Your task to perform on an android device: turn on the 24-hour format for clock Image 0: 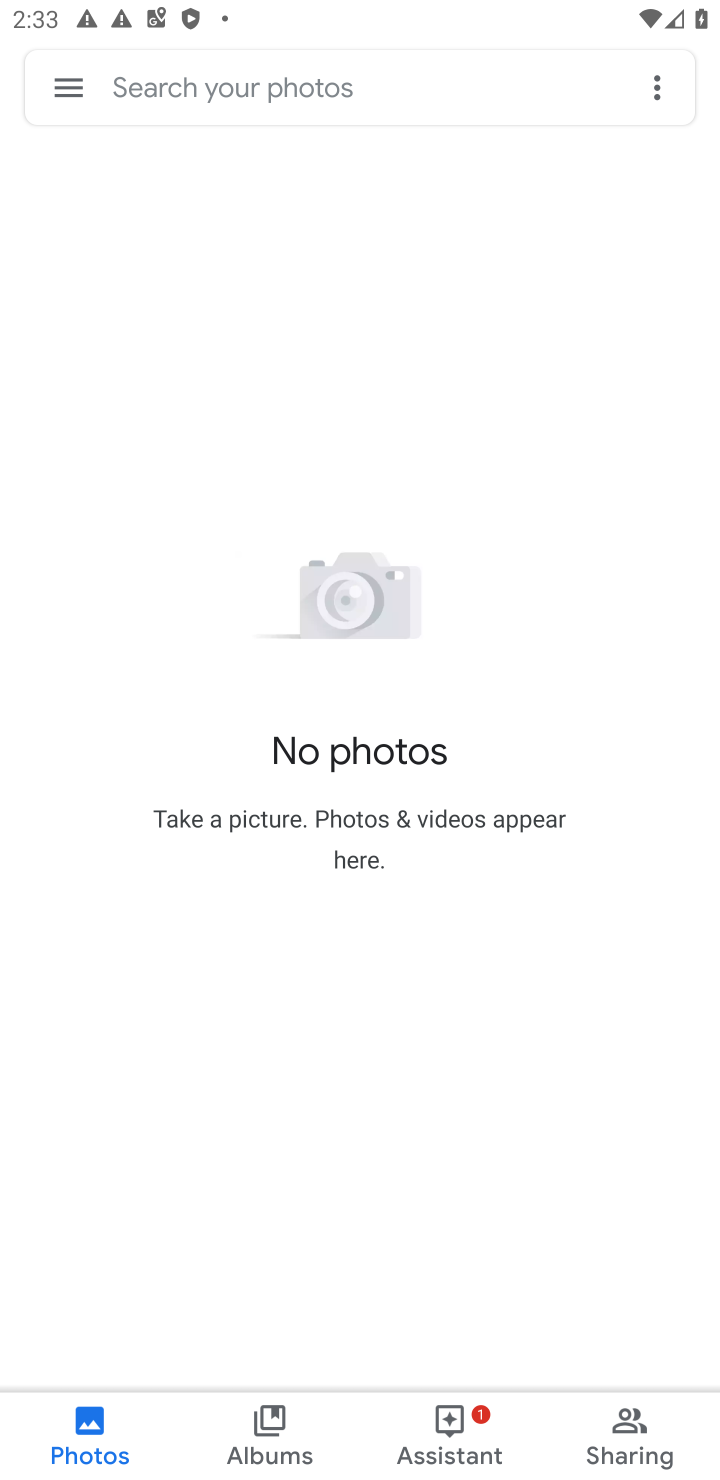
Step 0: press home button
Your task to perform on an android device: turn on the 24-hour format for clock Image 1: 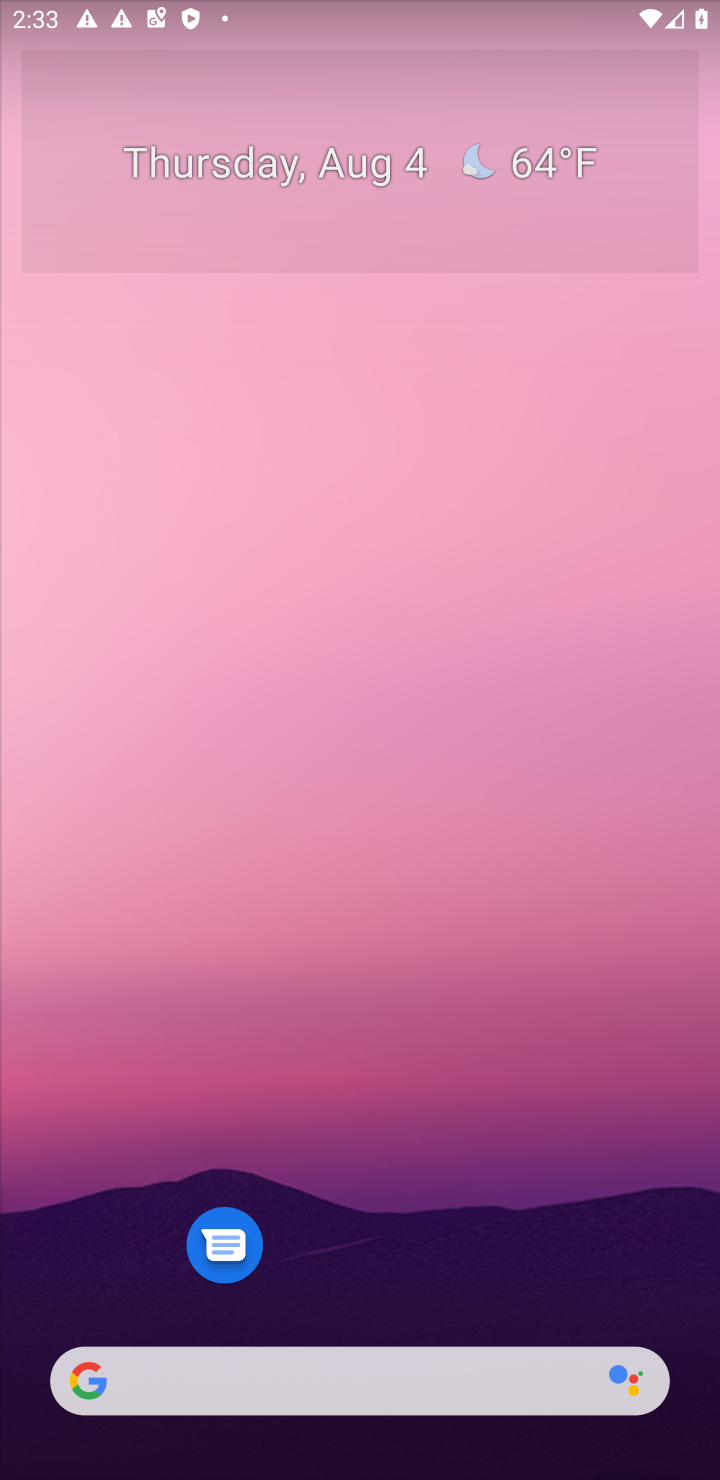
Step 1: drag from (416, 1203) to (501, 56)
Your task to perform on an android device: turn on the 24-hour format for clock Image 2: 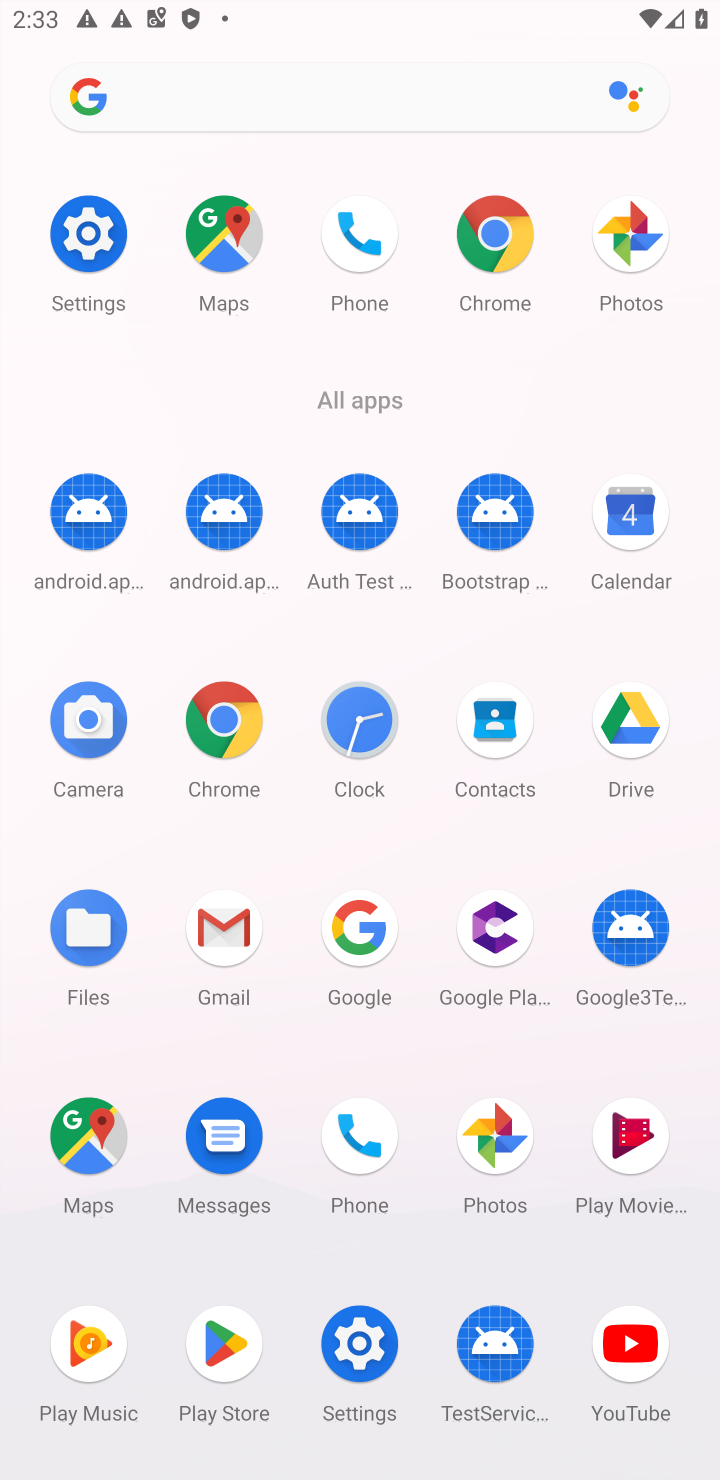
Step 2: click (351, 711)
Your task to perform on an android device: turn on the 24-hour format for clock Image 3: 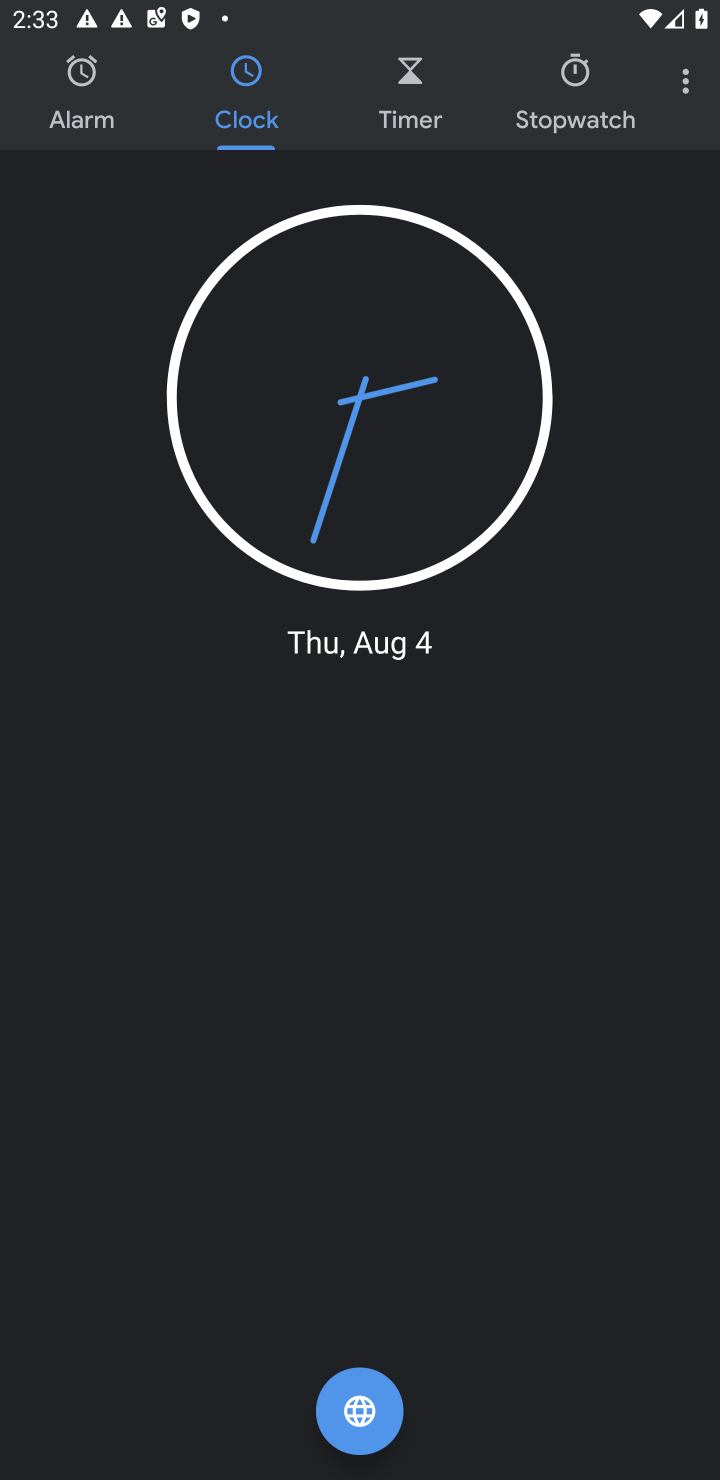
Step 3: click (667, 82)
Your task to perform on an android device: turn on the 24-hour format for clock Image 4: 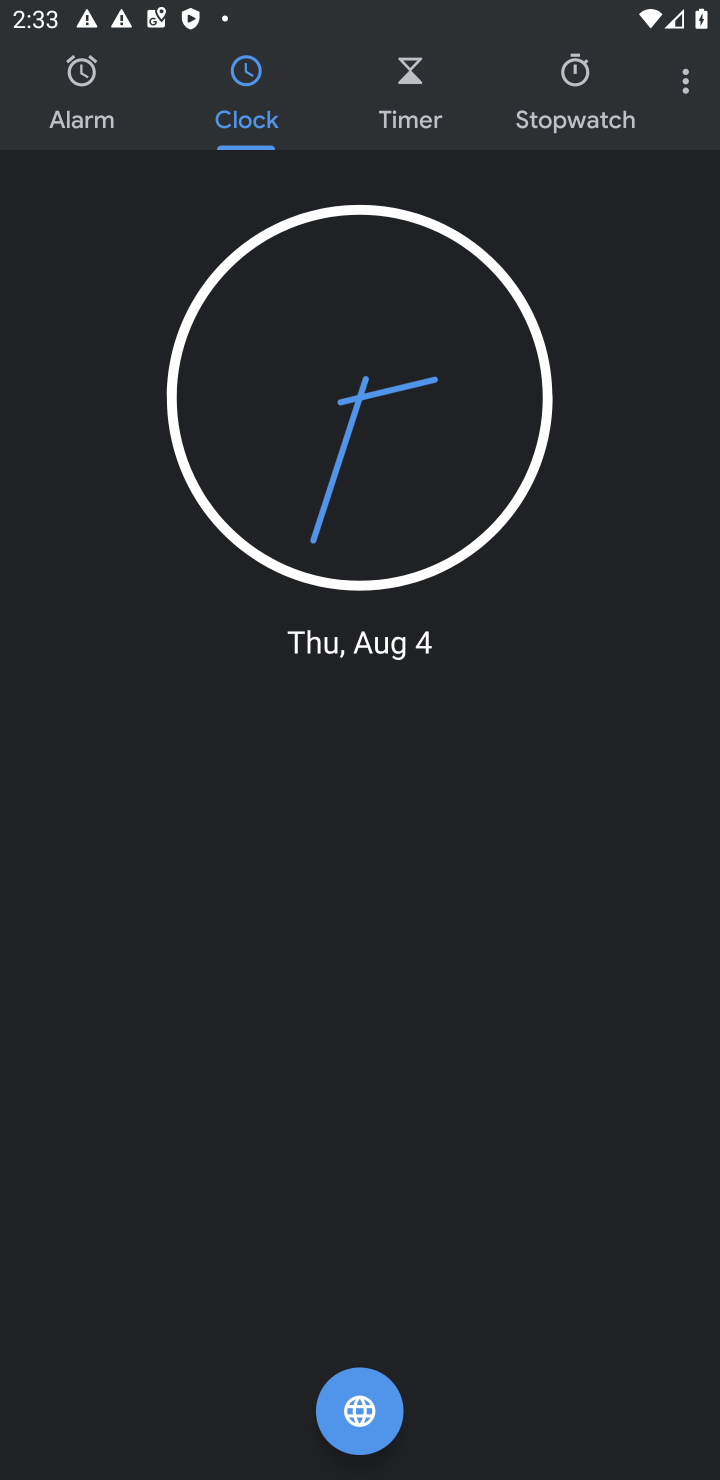
Step 4: click (681, 98)
Your task to perform on an android device: turn on the 24-hour format for clock Image 5: 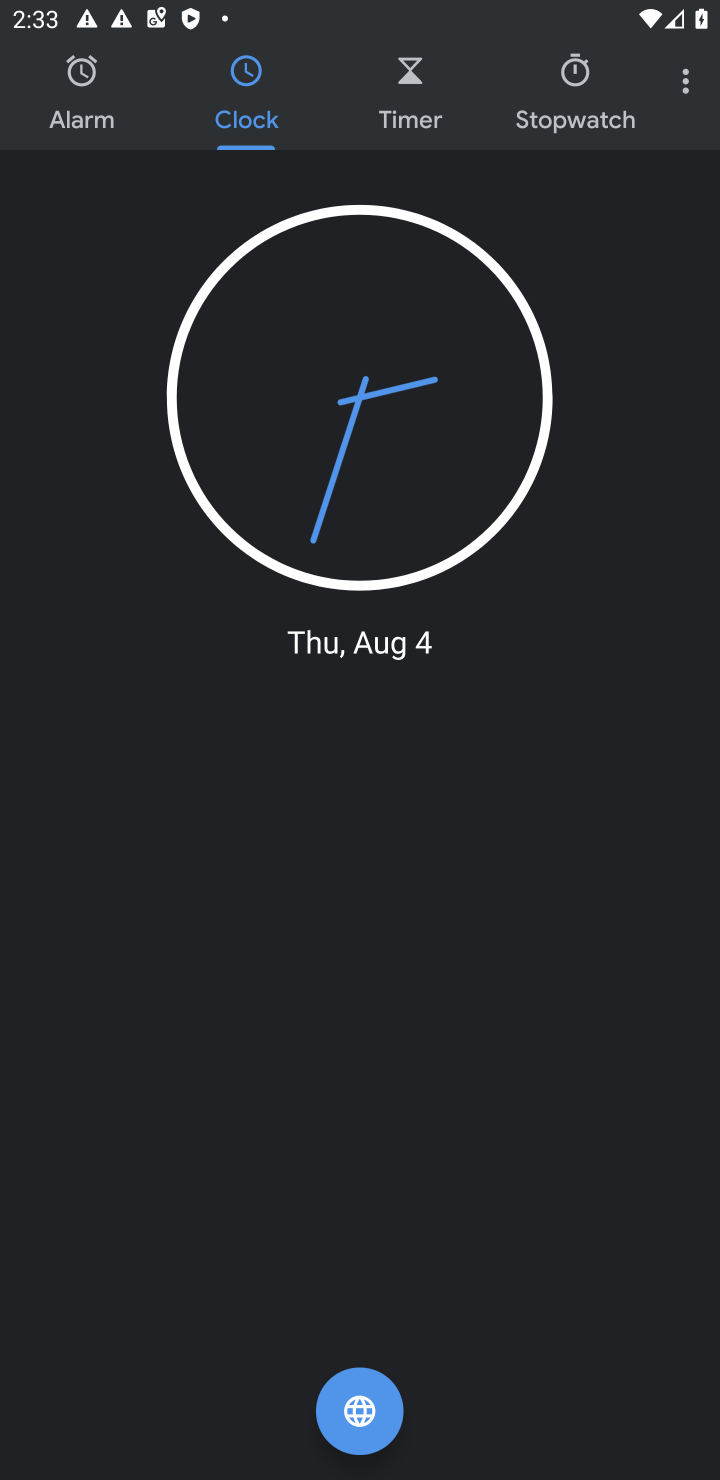
Step 5: click (690, 103)
Your task to perform on an android device: turn on the 24-hour format for clock Image 6: 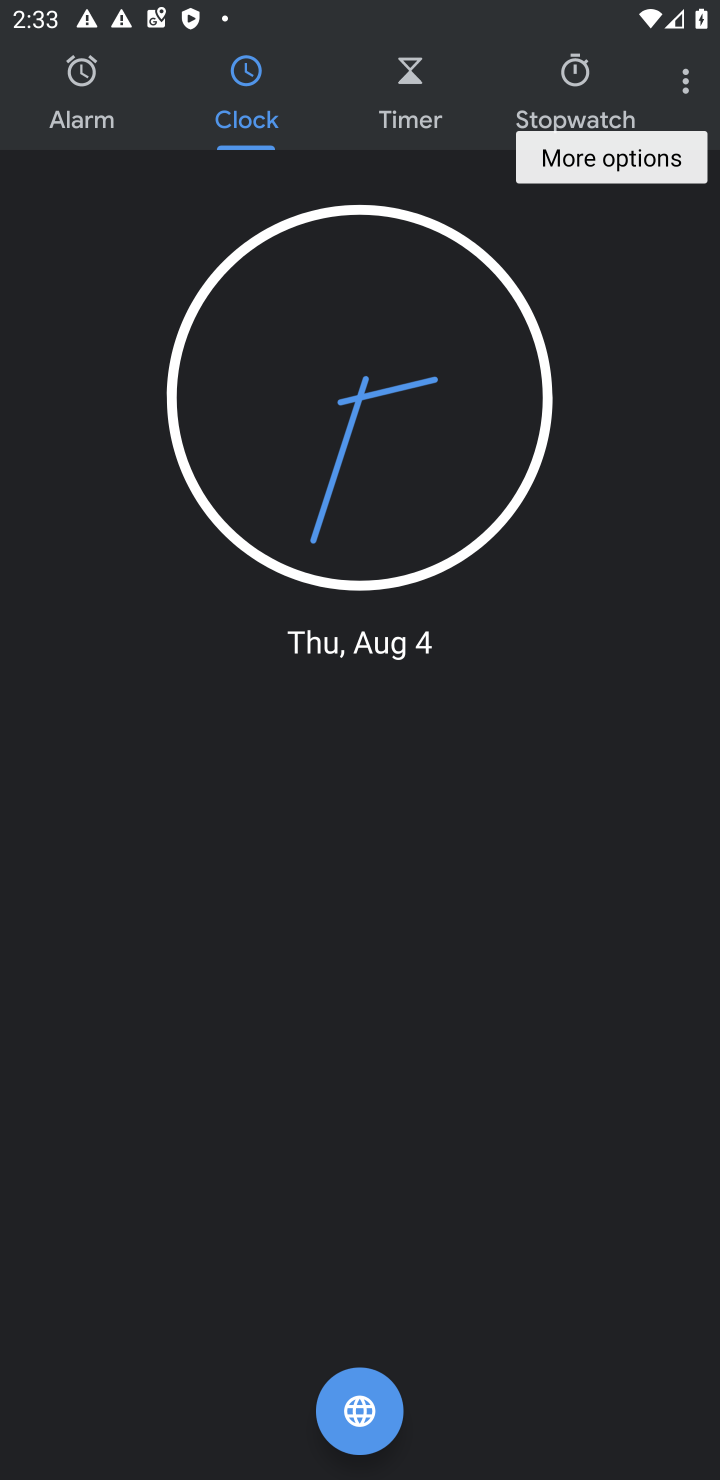
Step 6: click (690, 103)
Your task to perform on an android device: turn on the 24-hour format for clock Image 7: 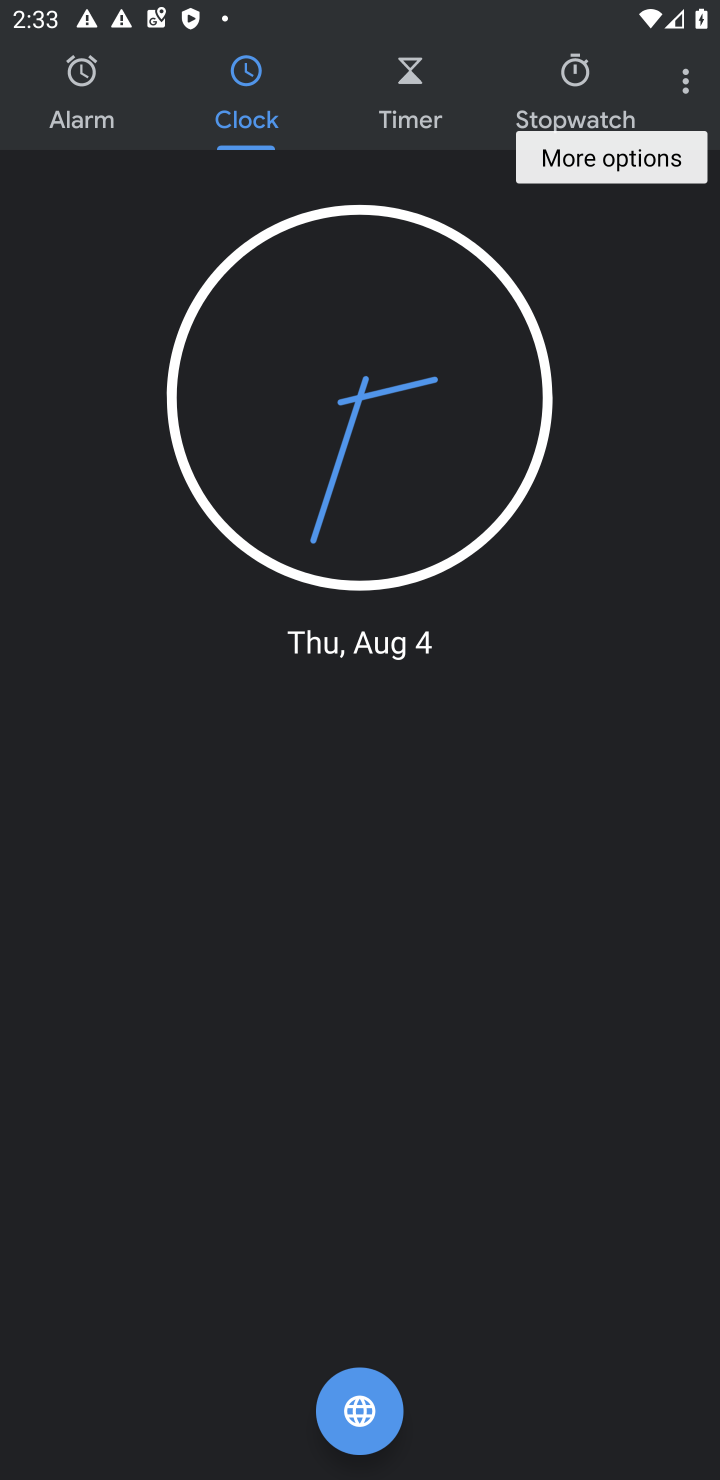
Step 7: click (690, 103)
Your task to perform on an android device: turn on the 24-hour format for clock Image 8: 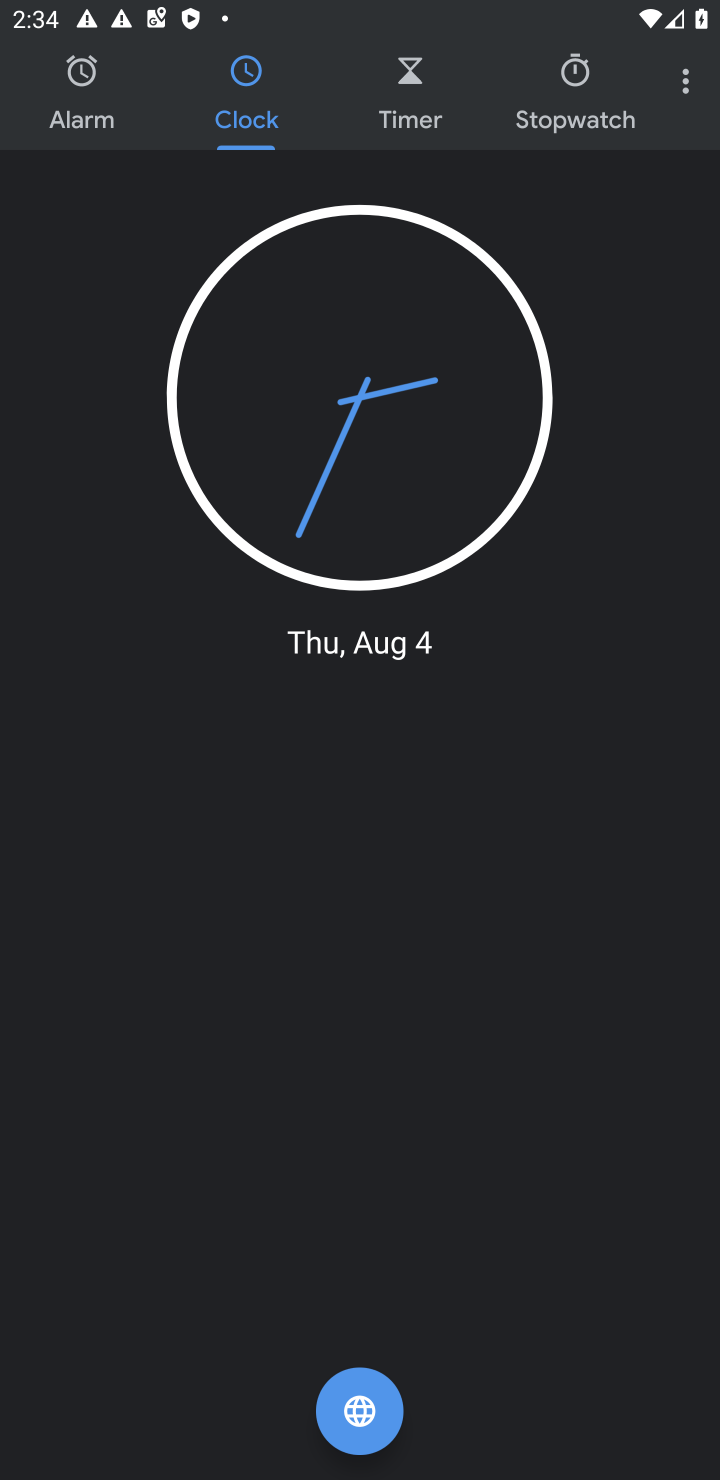
Step 8: click (679, 84)
Your task to perform on an android device: turn on the 24-hour format for clock Image 9: 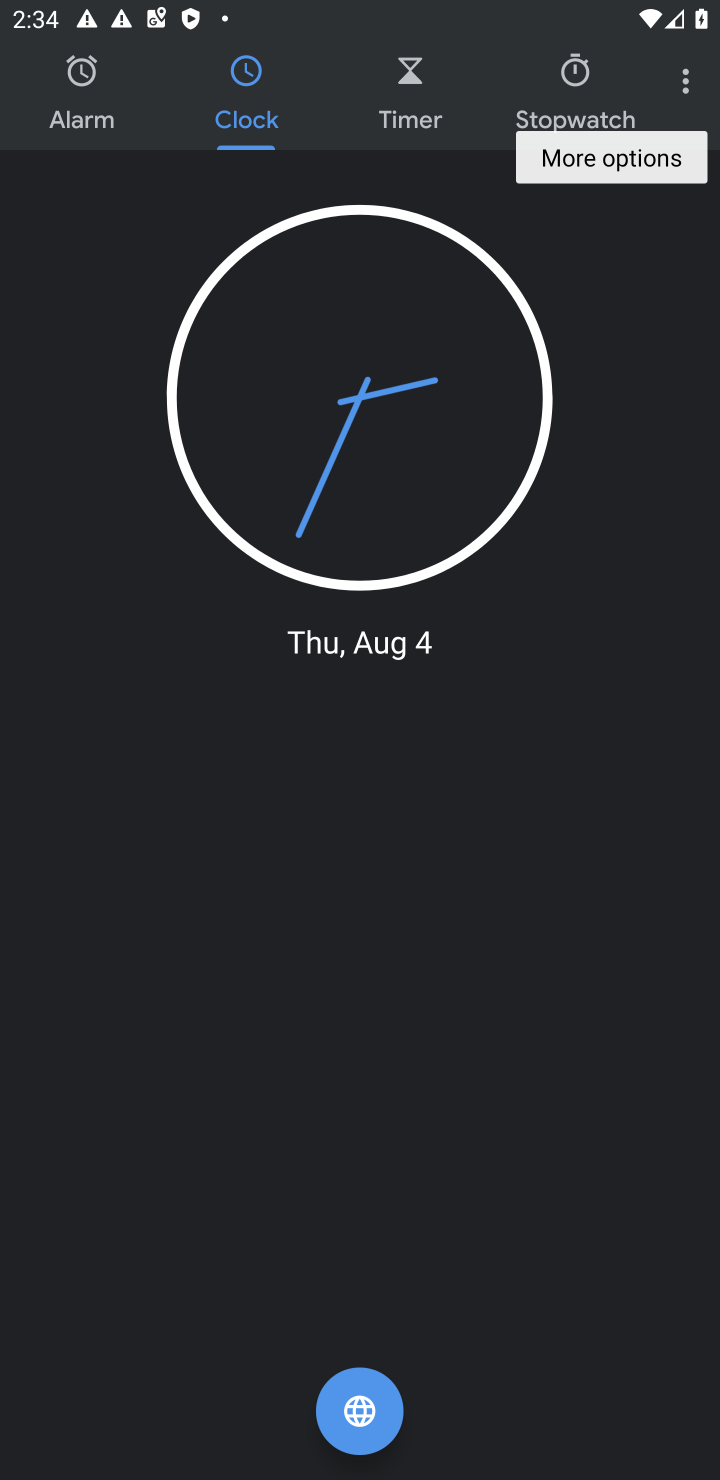
Step 9: click (679, 84)
Your task to perform on an android device: turn on the 24-hour format for clock Image 10: 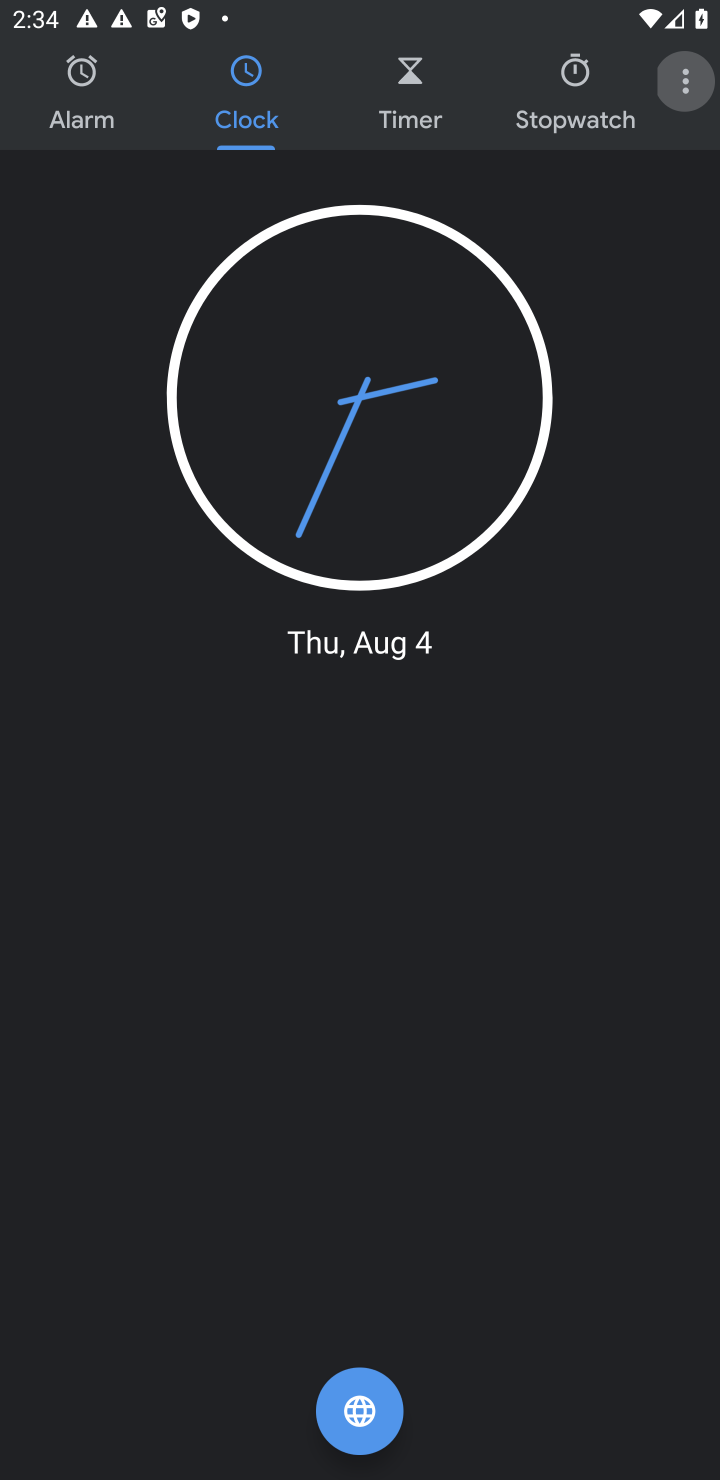
Step 10: click (679, 84)
Your task to perform on an android device: turn on the 24-hour format for clock Image 11: 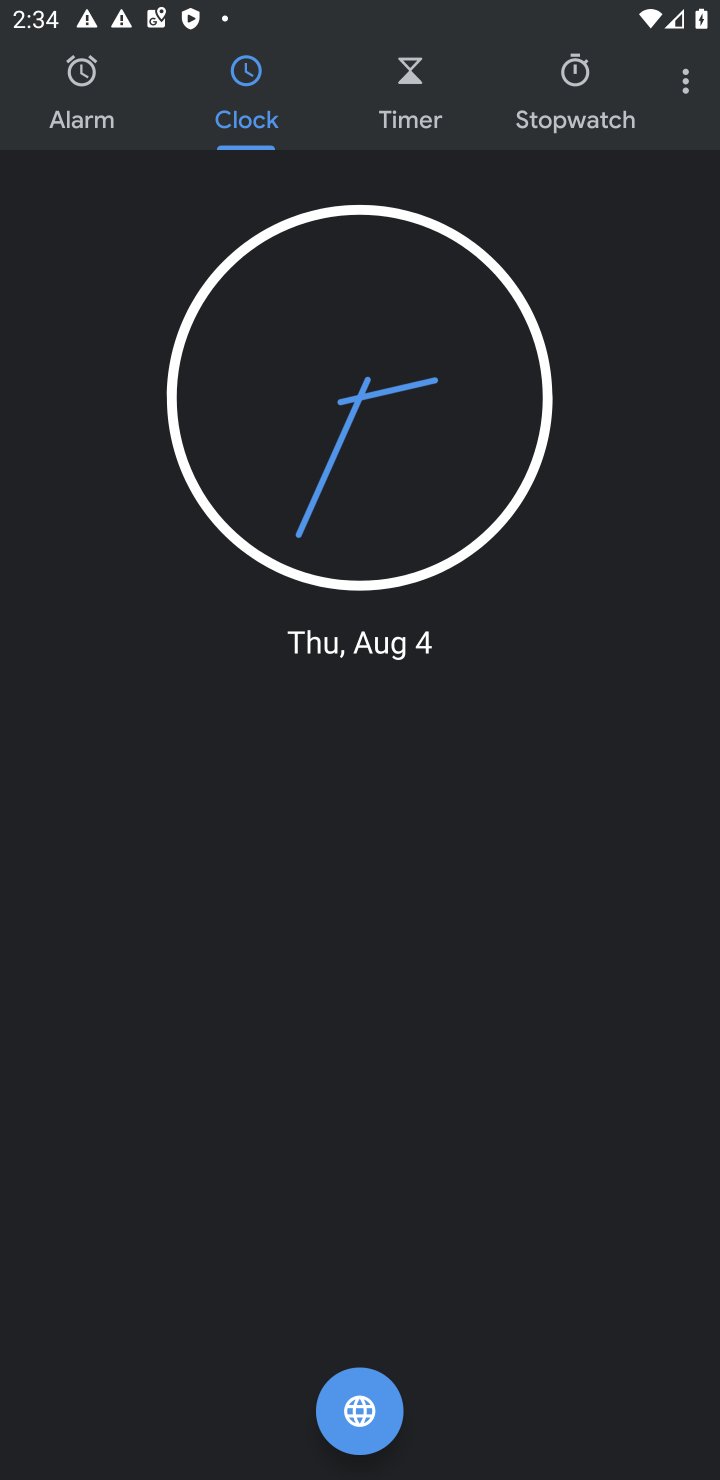
Step 11: click (688, 76)
Your task to perform on an android device: turn on the 24-hour format for clock Image 12: 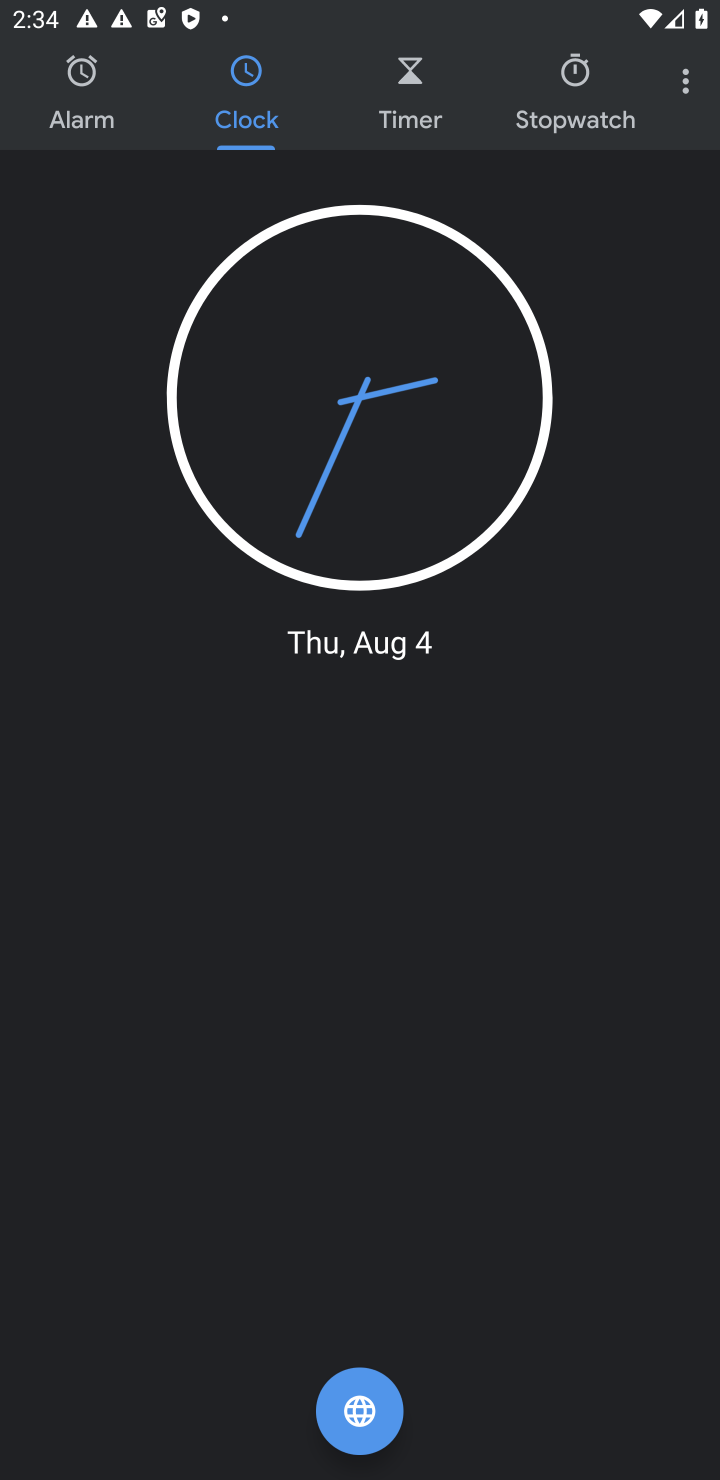
Step 12: click (670, 92)
Your task to perform on an android device: turn on the 24-hour format for clock Image 13: 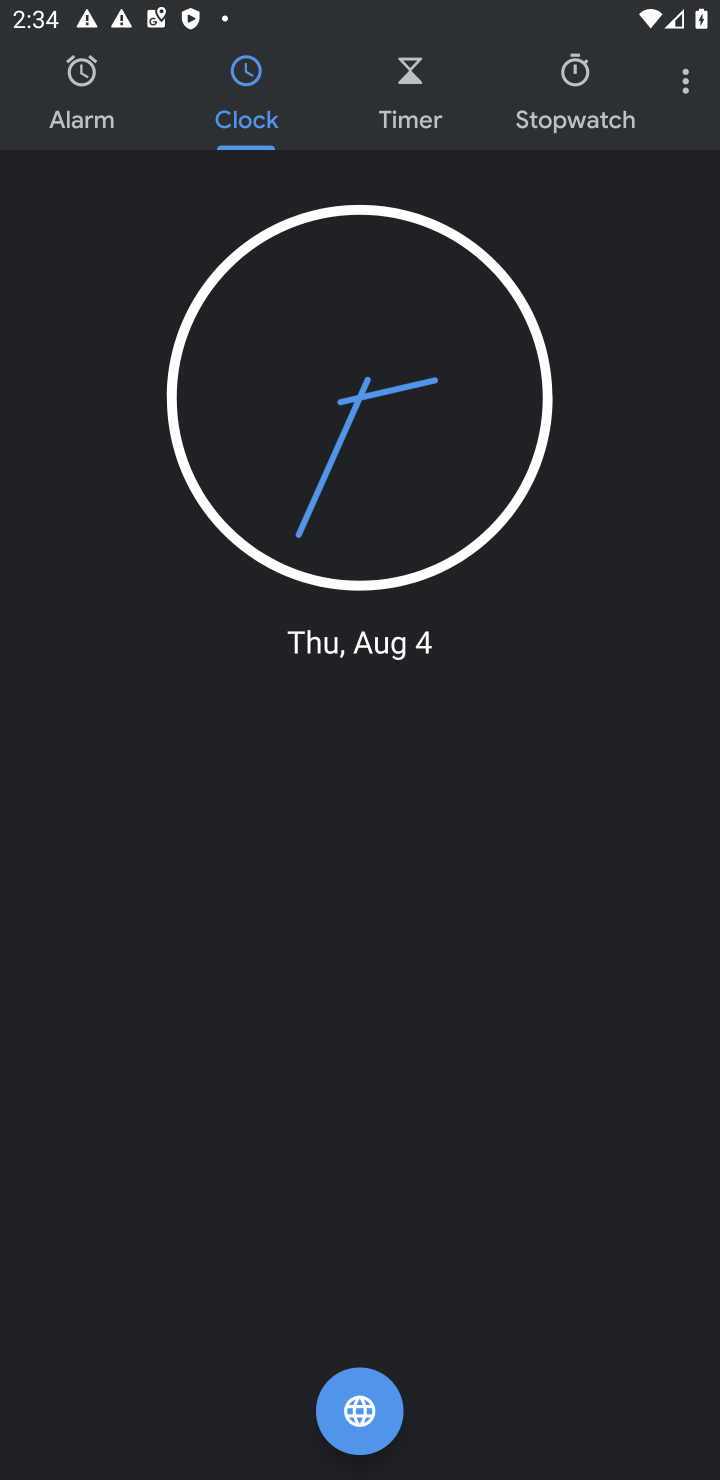
Step 13: click (688, 73)
Your task to perform on an android device: turn on the 24-hour format for clock Image 14: 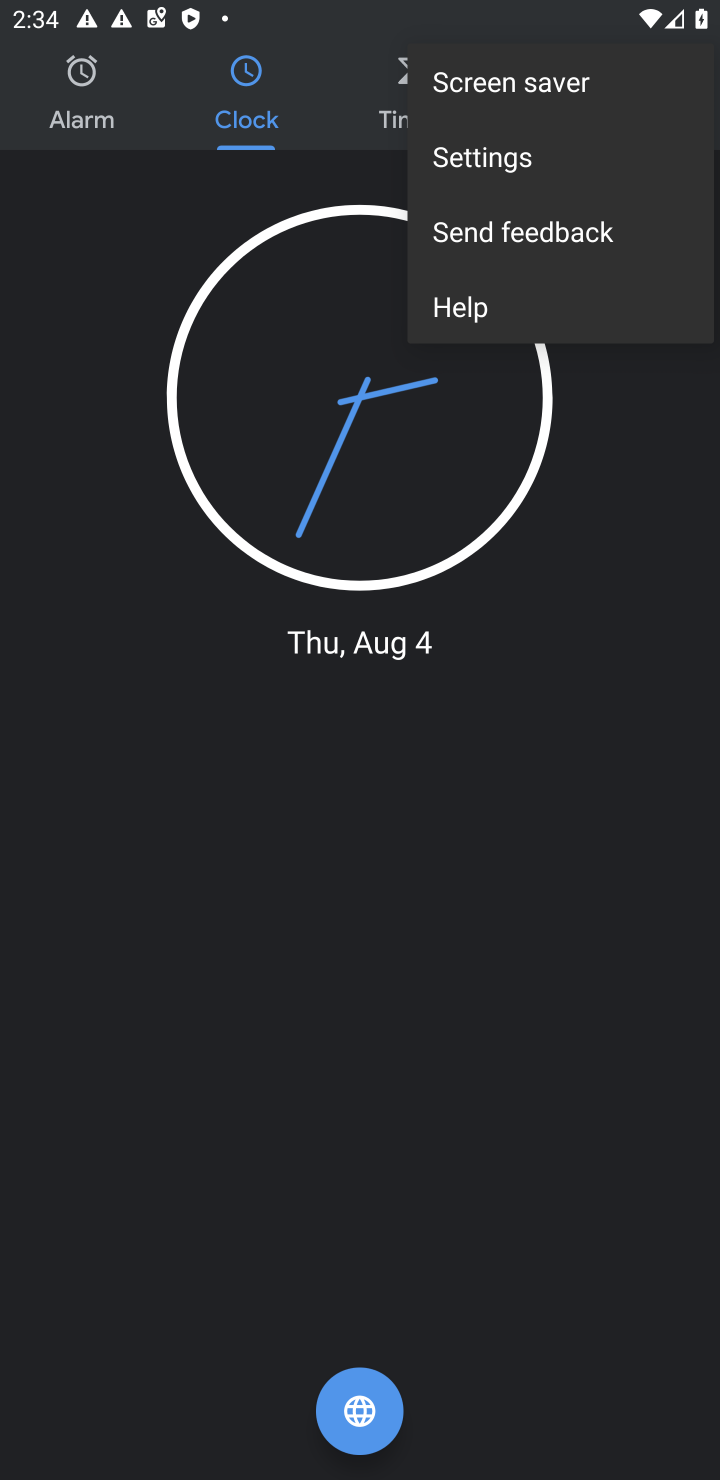
Step 14: click (526, 153)
Your task to perform on an android device: turn on the 24-hour format for clock Image 15: 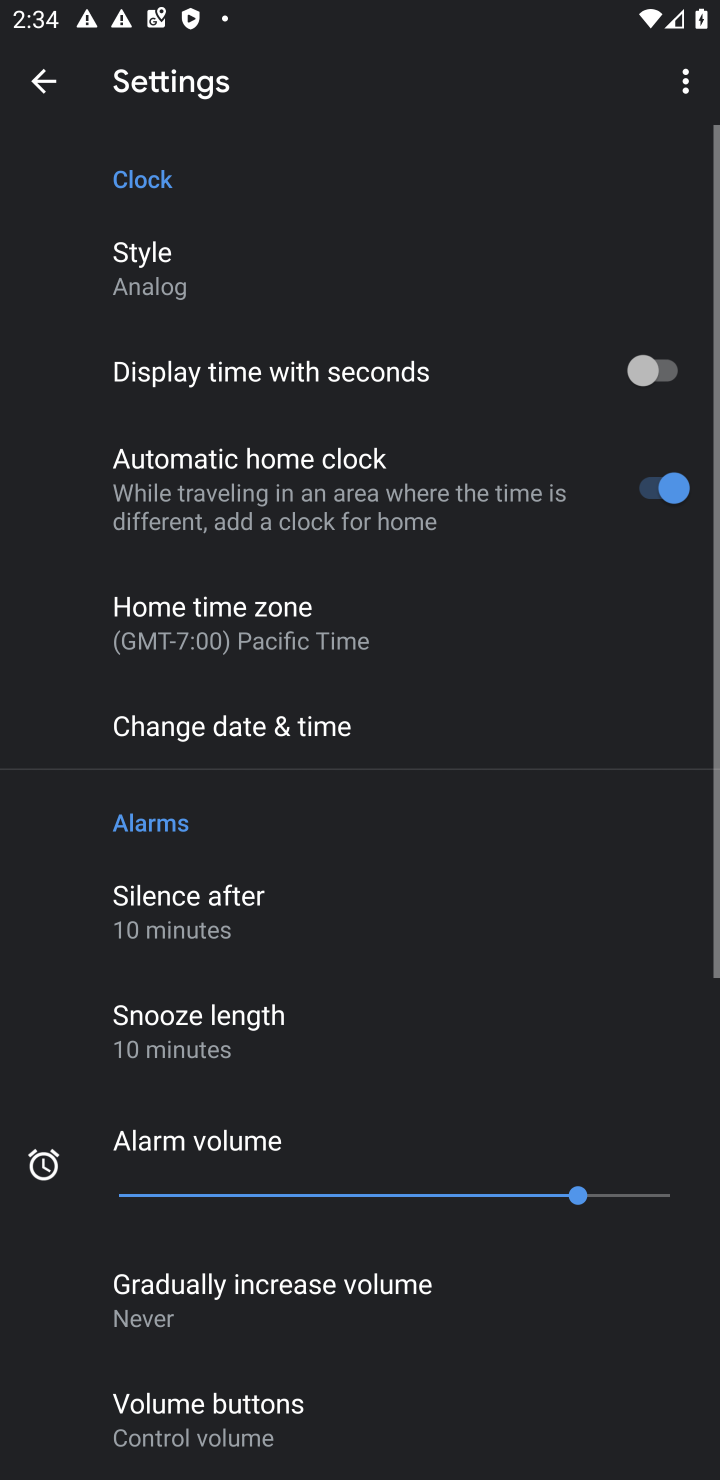
Step 15: click (249, 741)
Your task to perform on an android device: turn on the 24-hour format for clock Image 16: 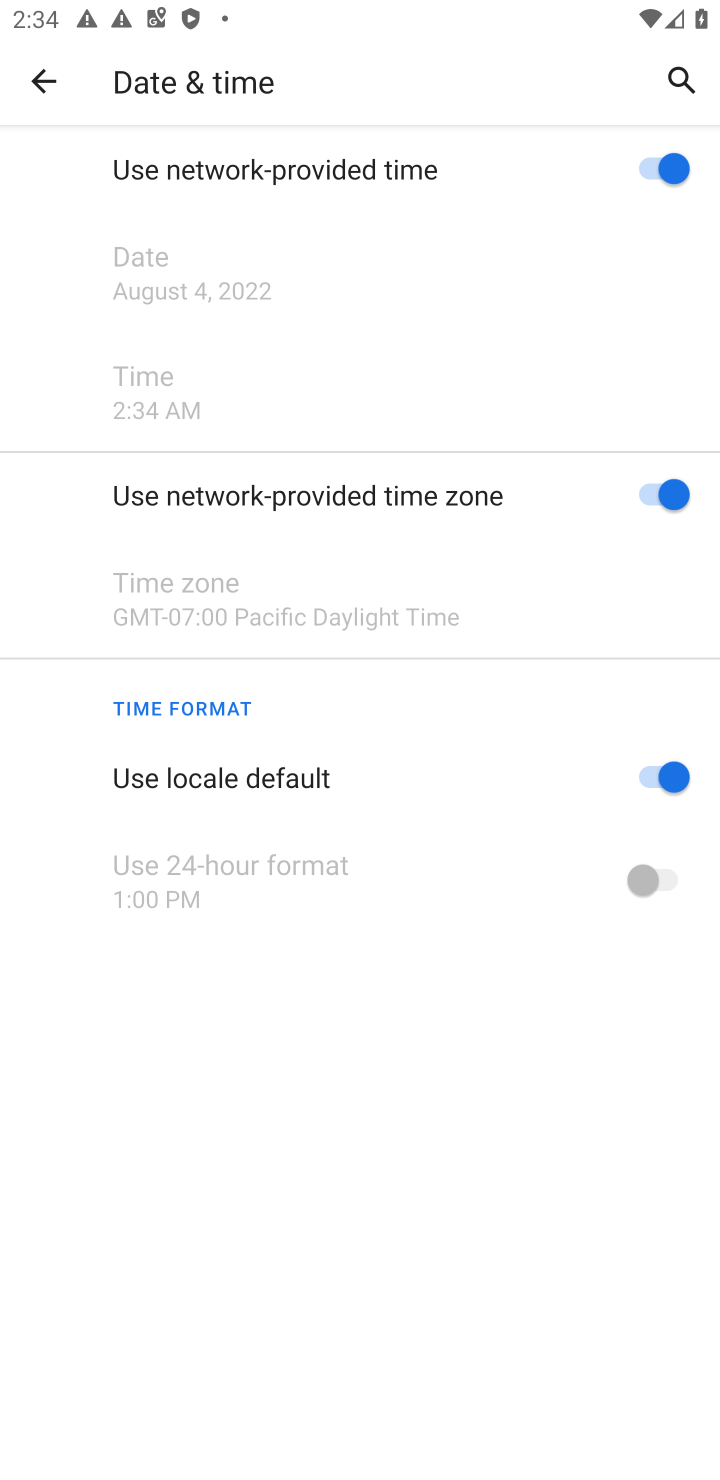
Step 16: click (660, 892)
Your task to perform on an android device: turn on the 24-hour format for clock Image 17: 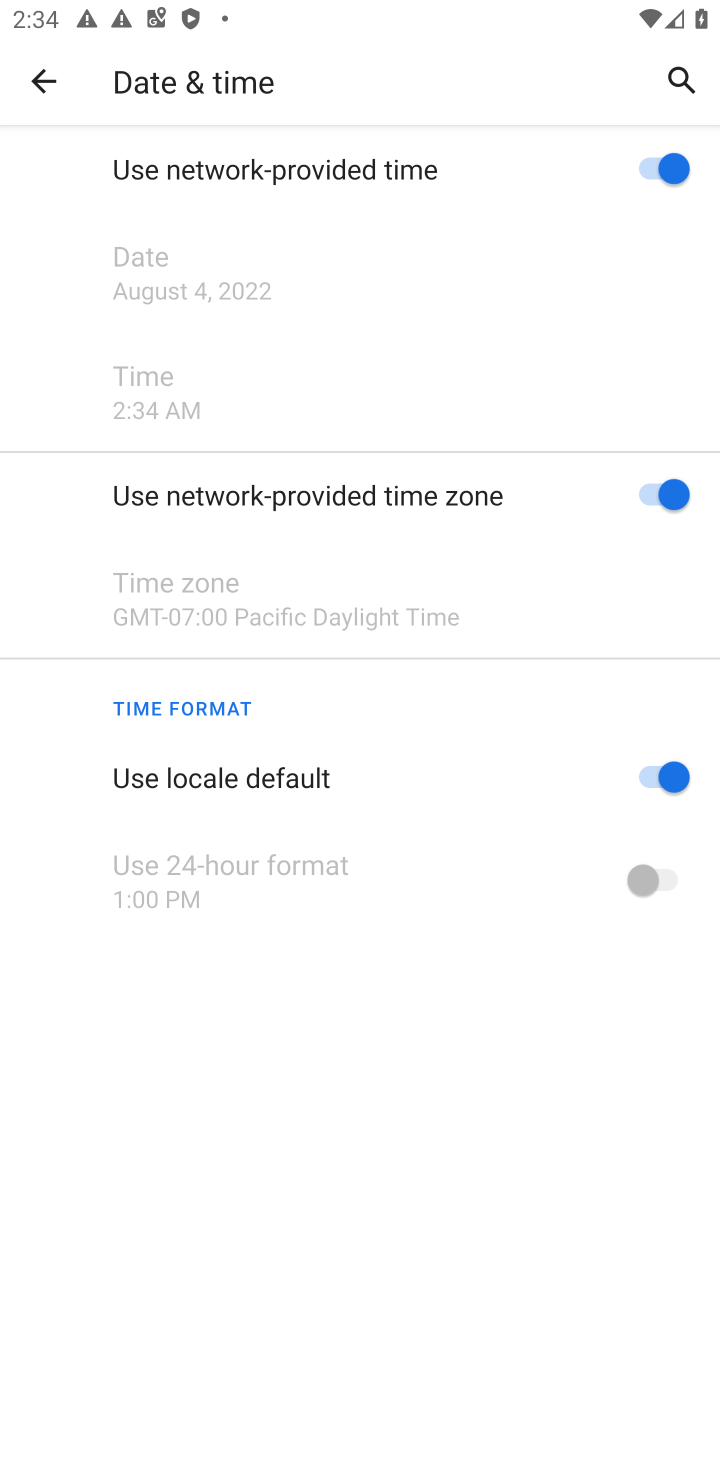
Step 17: click (660, 746)
Your task to perform on an android device: turn on the 24-hour format for clock Image 18: 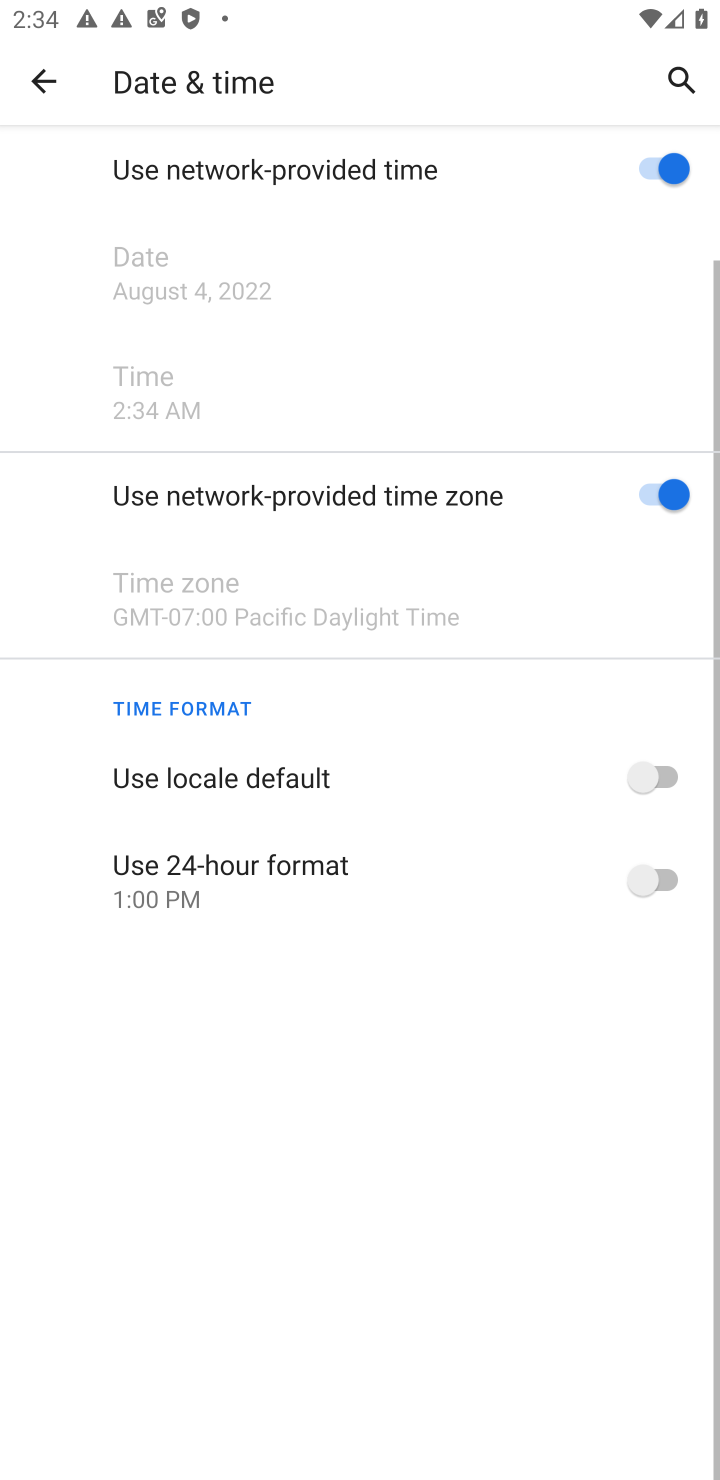
Step 18: click (636, 876)
Your task to perform on an android device: turn on the 24-hour format for clock Image 19: 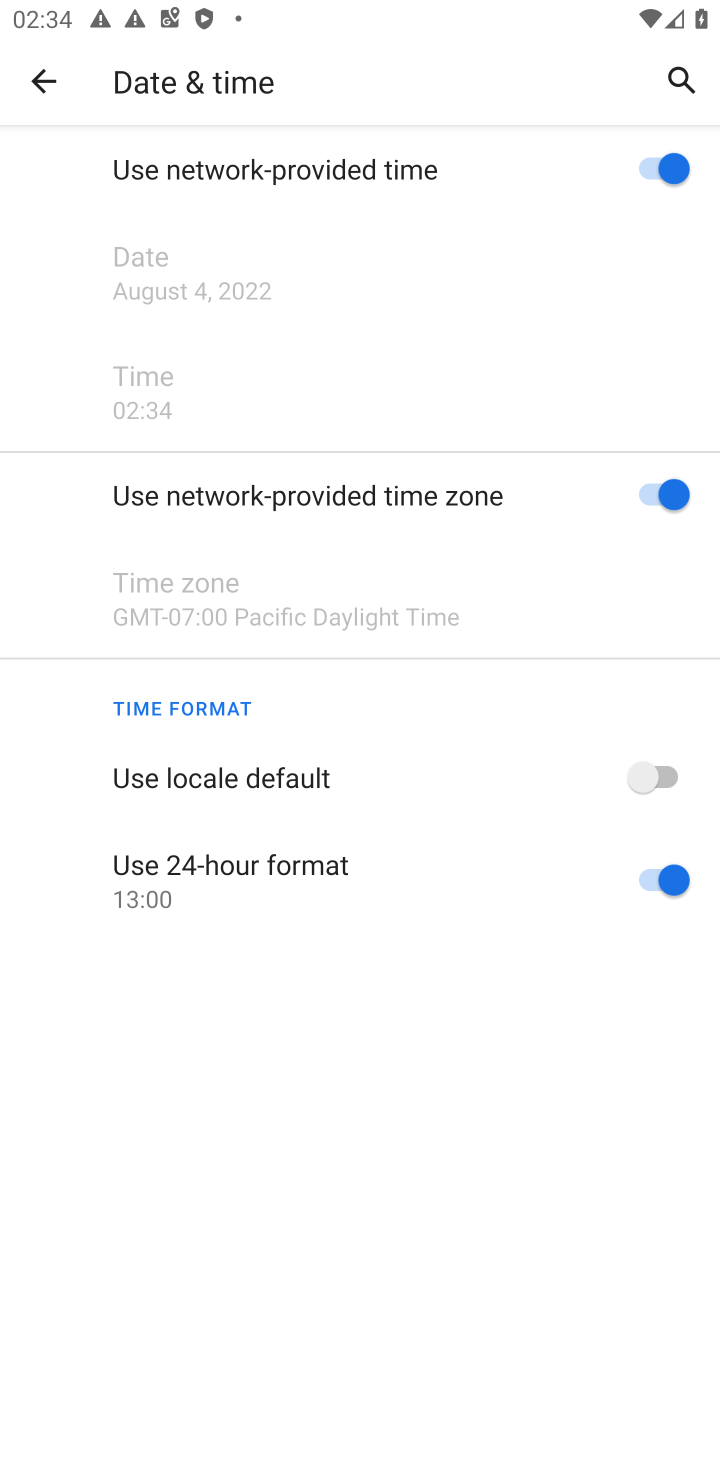
Step 19: task complete